Your task to perform on an android device: Show me the alarms in the clock app Image 0: 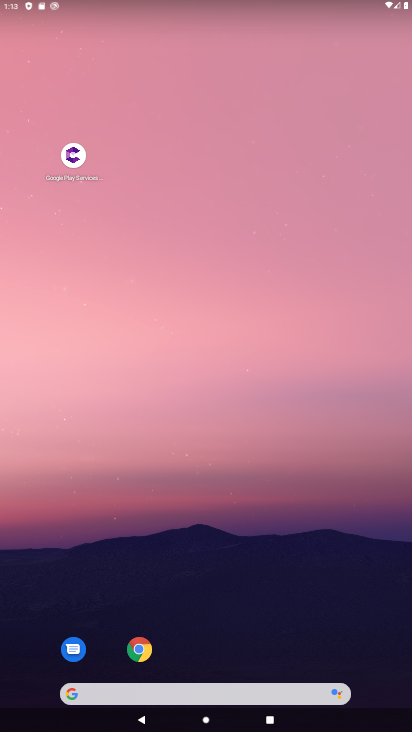
Step 0: drag from (207, 684) to (299, 66)
Your task to perform on an android device: Show me the alarms in the clock app Image 1: 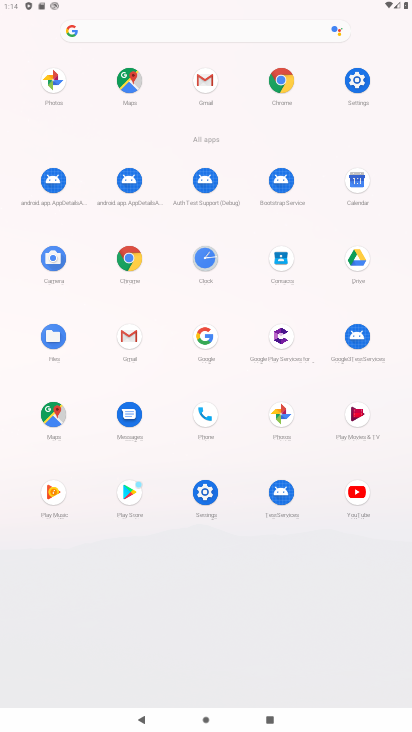
Step 1: click (209, 269)
Your task to perform on an android device: Show me the alarms in the clock app Image 2: 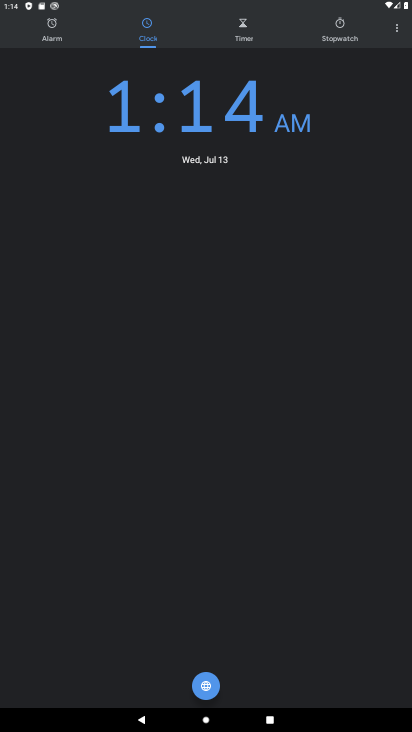
Step 2: click (46, 31)
Your task to perform on an android device: Show me the alarms in the clock app Image 3: 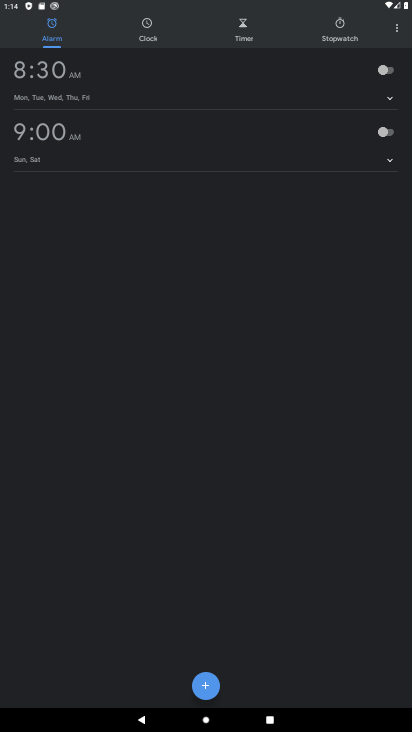
Step 3: task complete